Your task to perform on an android device: turn on showing notifications on the lock screen Image 0: 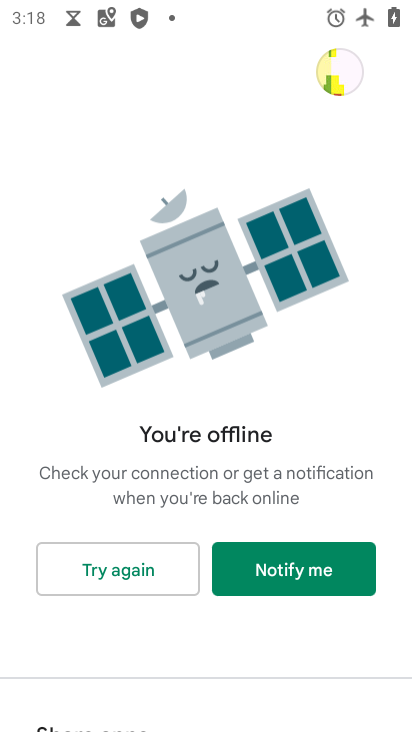
Step 0: press home button
Your task to perform on an android device: turn on showing notifications on the lock screen Image 1: 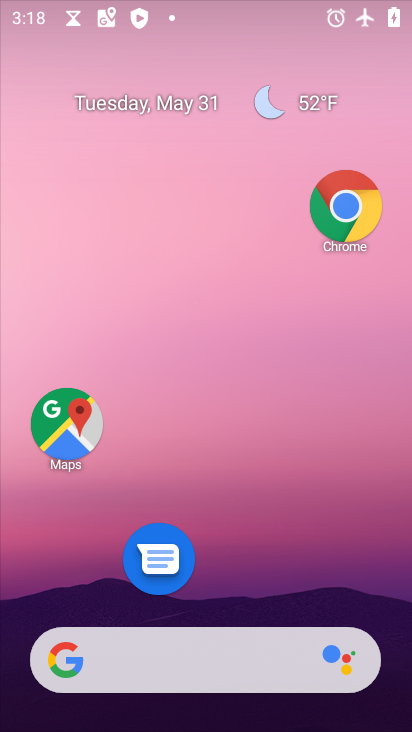
Step 1: drag from (257, 522) to (295, 150)
Your task to perform on an android device: turn on showing notifications on the lock screen Image 2: 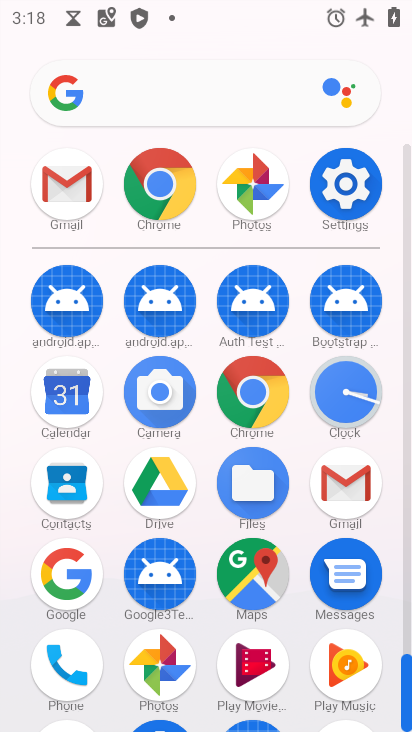
Step 2: click (351, 219)
Your task to perform on an android device: turn on showing notifications on the lock screen Image 3: 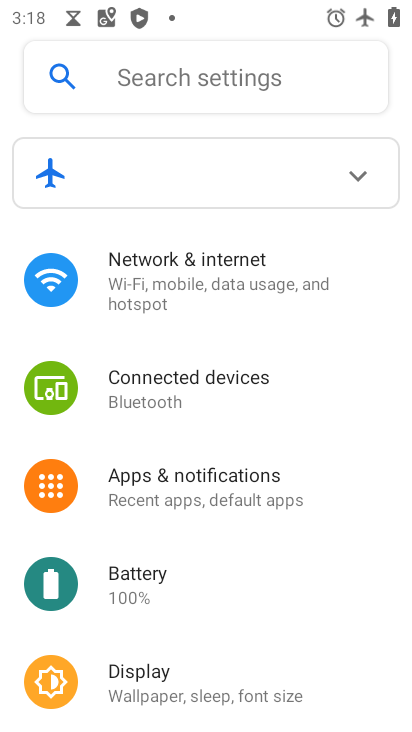
Step 3: click (178, 495)
Your task to perform on an android device: turn on showing notifications on the lock screen Image 4: 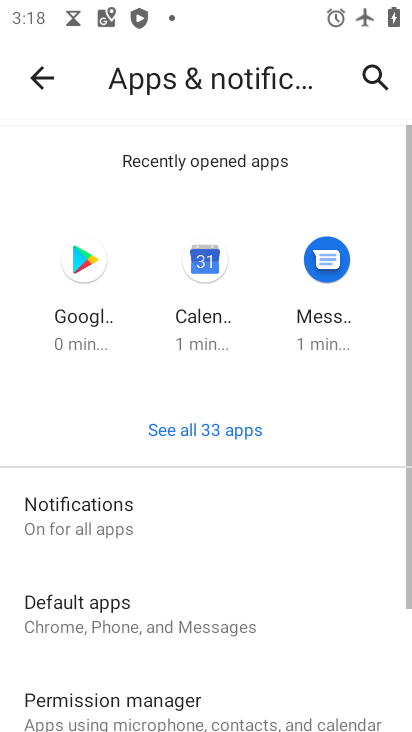
Step 4: click (186, 520)
Your task to perform on an android device: turn on showing notifications on the lock screen Image 5: 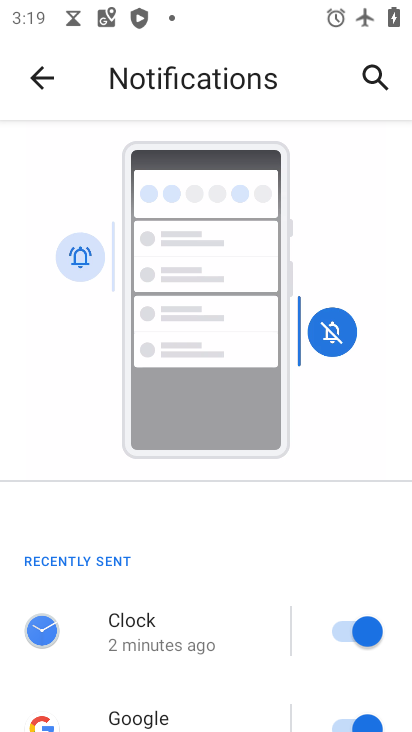
Step 5: press home button
Your task to perform on an android device: turn on showing notifications on the lock screen Image 6: 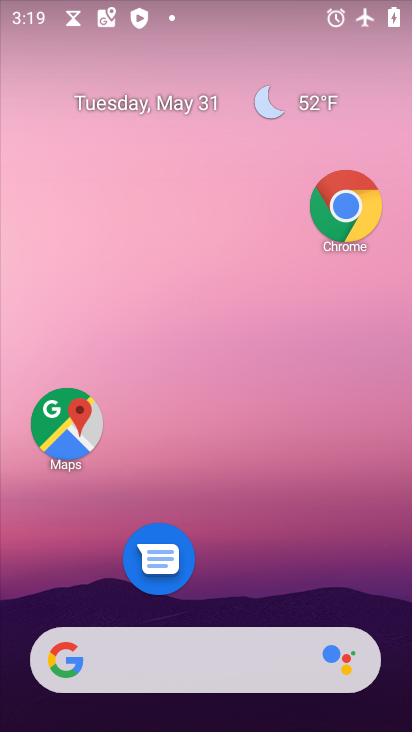
Step 6: drag from (325, 586) to (299, 56)
Your task to perform on an android device: turn on showing notifications on the lock screen Image 7: 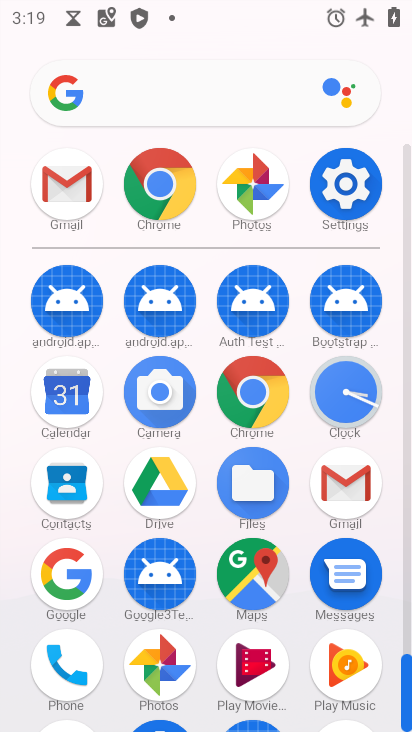
Step 7: click (357, 205)
Your task to perform on an android device: turn on showing notifications on the lock screen Image 8: 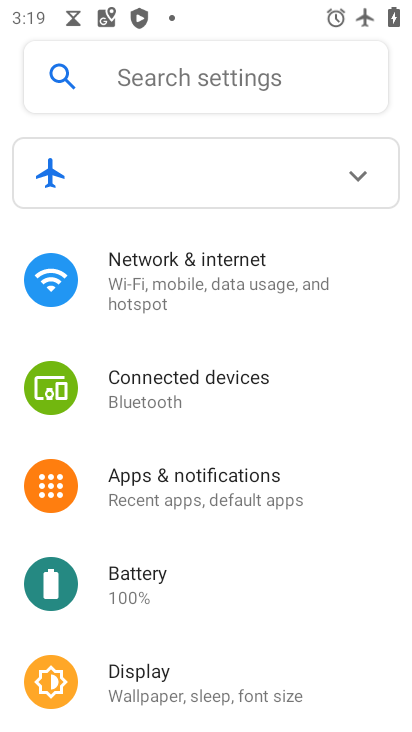
Step 8: drag from (189, 518) to (252, 272)
Your task to perform on an android device: turn on showing notifications on the lock screen Image 9: 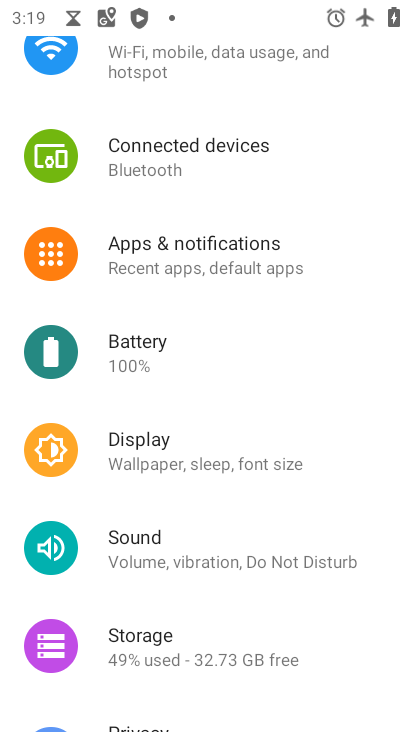
Step 9: click (242, 245)
Your task to perform on an android device: turn on showing notifications on the lock screen Image 10: 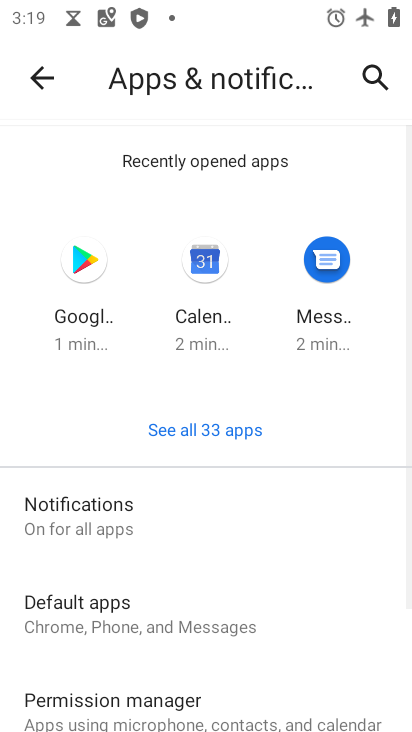
Step 10: click (165, 542)
Your task to perform on an android device: turn on showing notifications on the lock screen Image 11: 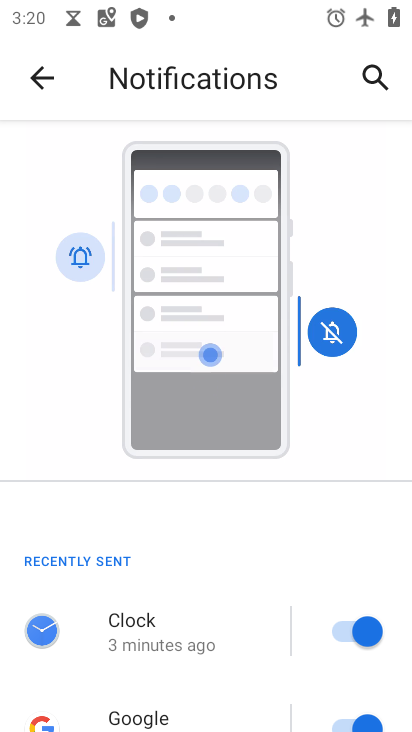
Step 11: drag from (164, 575) to (288, 74)
Your task to perform on an android device: turn on showing notifications on the lock screen Image 12: 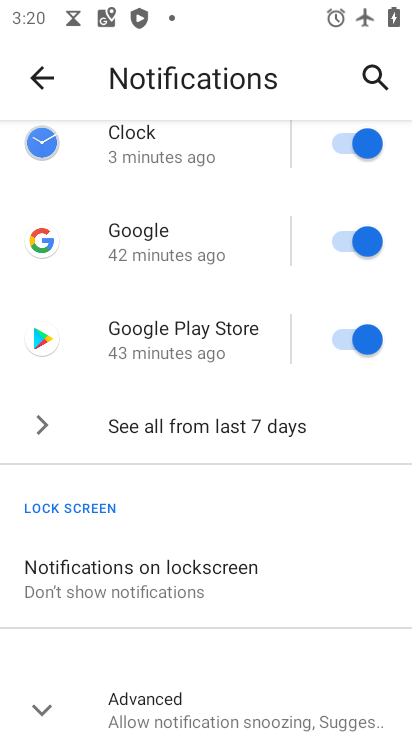
Step 12: click (216, 585)
Your task to perform on an android device: turn on showing notifications on the lock screen Image 13: 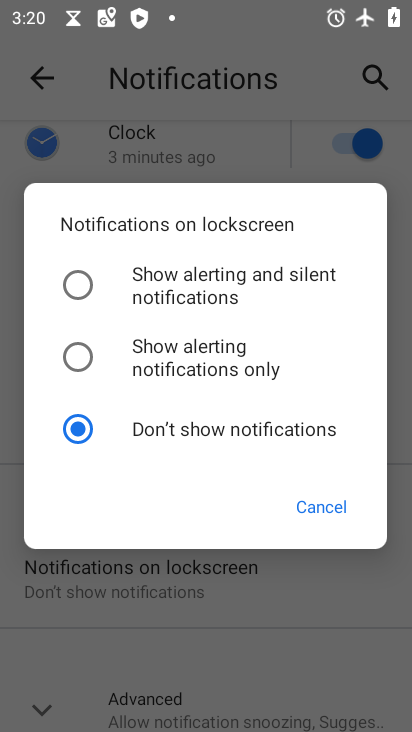
Step 13: click (205, 293)
Your task to perform on an android device: turn on showing notifications on the lock screen Image 14: 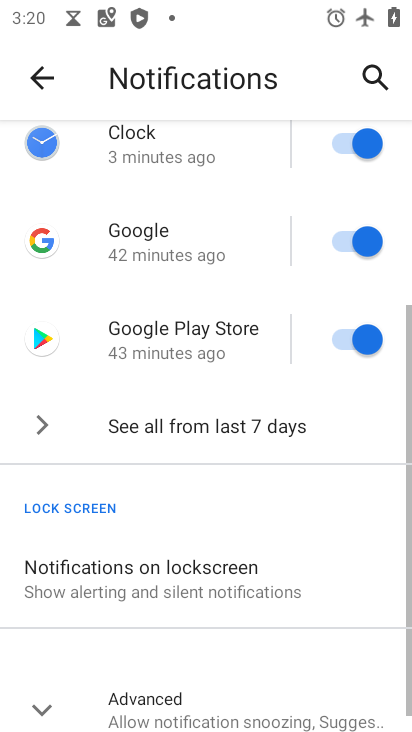
Step 14: task complete